Your task to perform on an android device: toggle sleep mode Image 0: 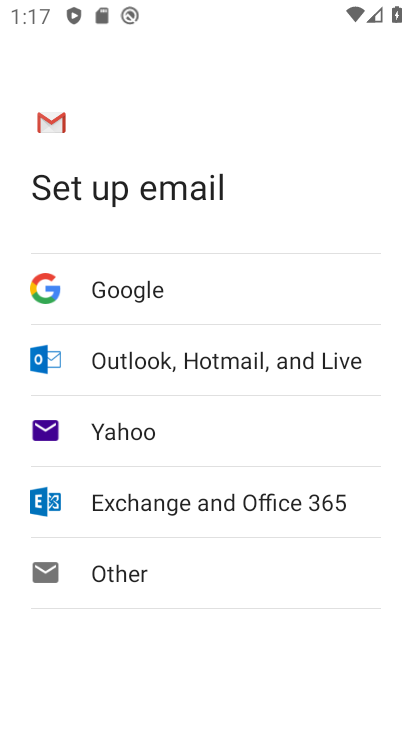
Step 0: press home button
Your task to perform on an android device: toggle sleep mode Image 1: 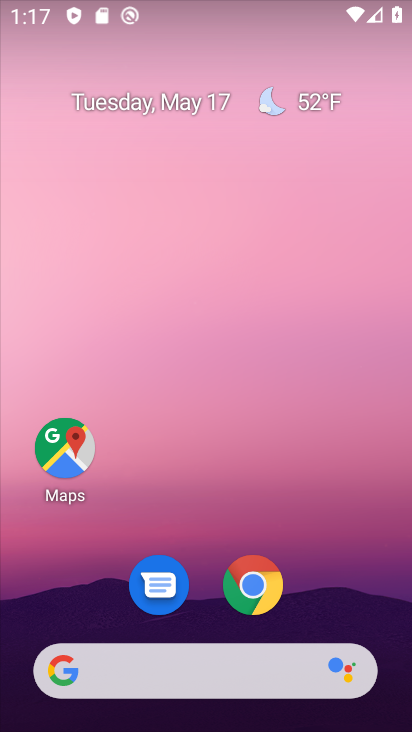
Step 1: drag from (317, 490) to (257, 25)
Your task to perform on an android device: toggle sleep mode Image 2: 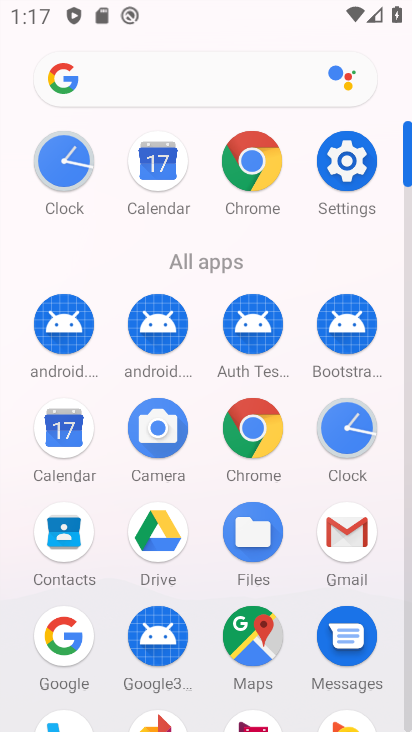
Step 2: click (340, 164)
Your task to perform on an android device: toggle sleep mode Image 3: 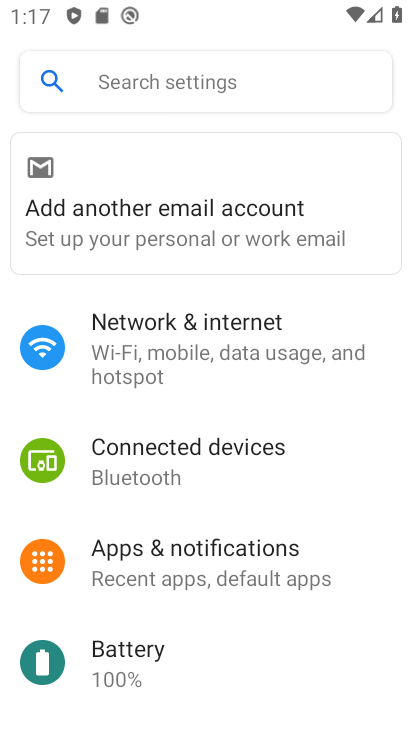
Step 3: drag from (229, 600) to (261, 322)
Your task to perform on an android device: toggle sleep mode Image 4: 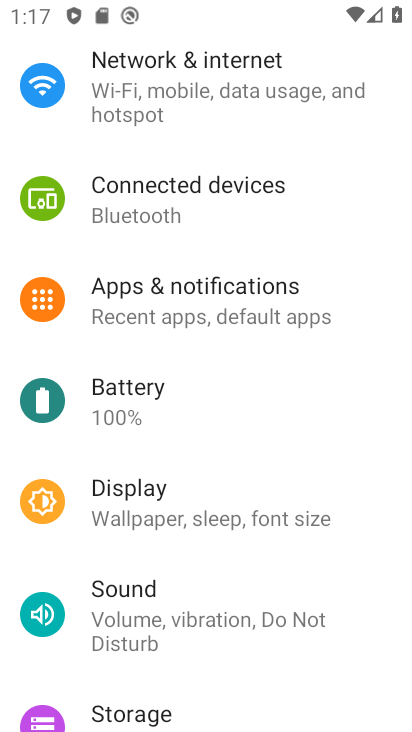
Step 4: click (257, 500)
Your task to perform on an android device: toggle sleep mode Image 5: 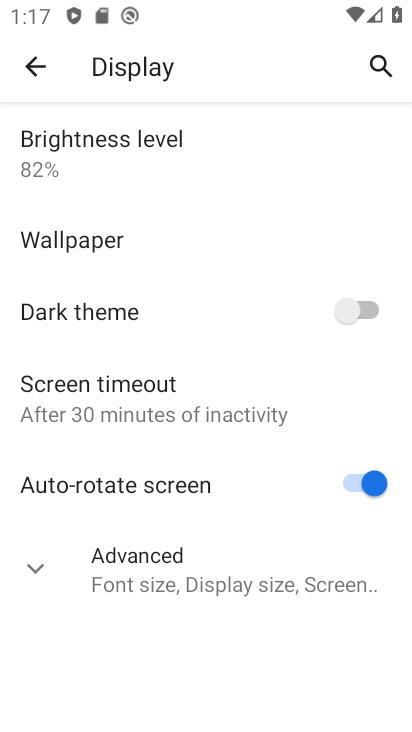
Step 5: click (45, 566)
Your task to perform on an android device: toggle sleep mode Image 6: 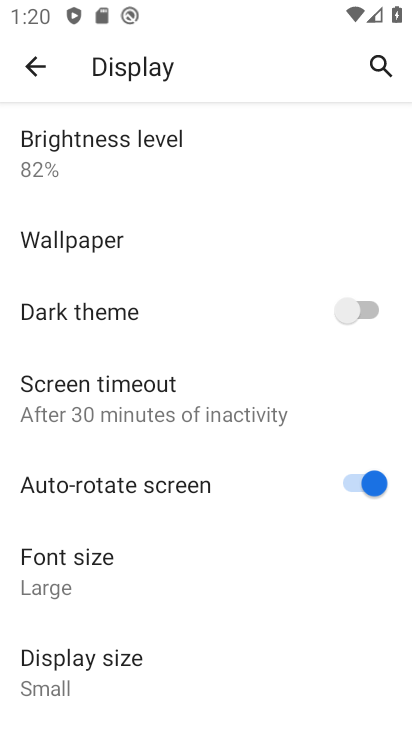
Step 6: task complete